Your task to perform on an android device: turn on airplane mode Image 0: 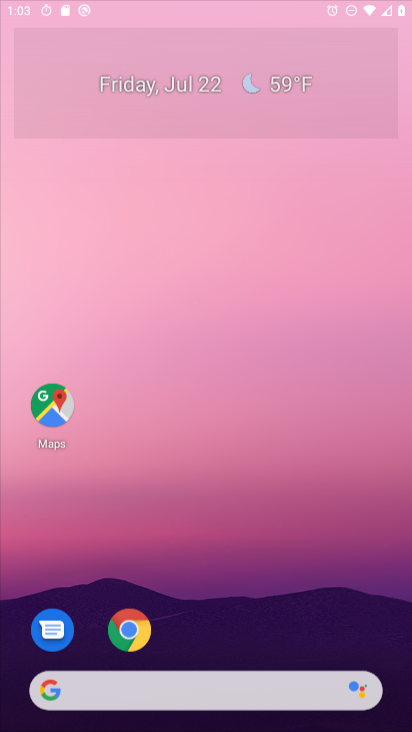
Step 0: press home button
Your task to perform on an android device: turn on airplane mode Image 1: 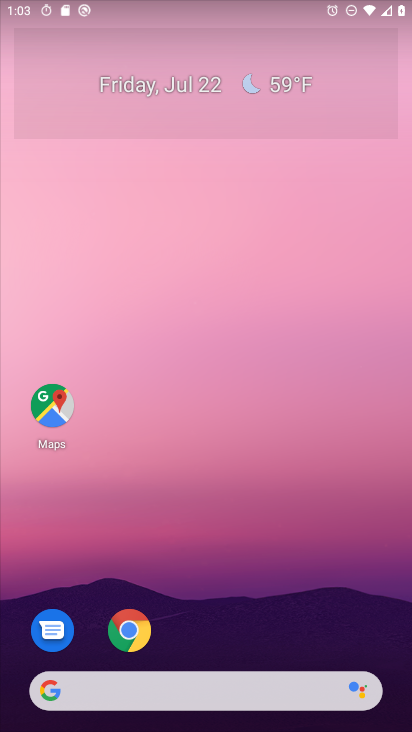
Step 1: drag from (199, 4) to (186, 505)
Your task to perform on an android device: turn on airplane mode Image 2: 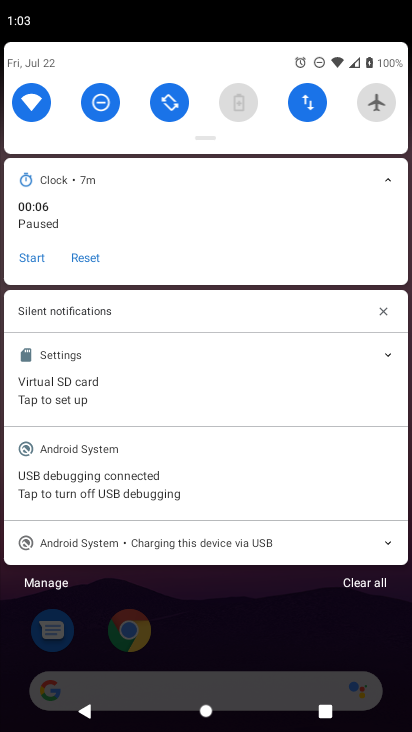
Step 2: click (377, 100)
Your task to perform on an android device: turn on airplane mode Image 3: 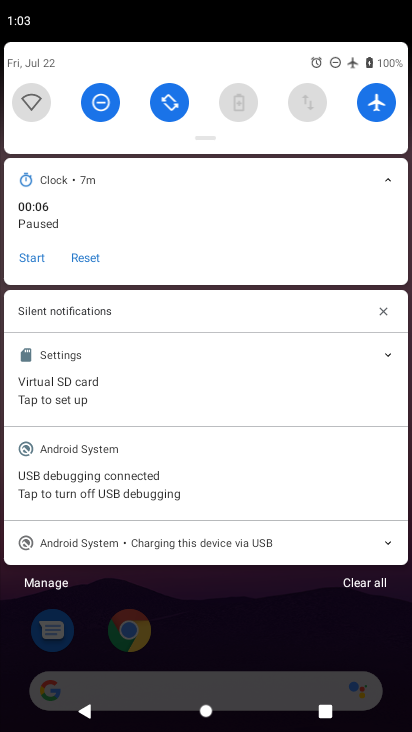
Step 3: task complete